Your task to perform on an android device: Go to Android settings Image 0: 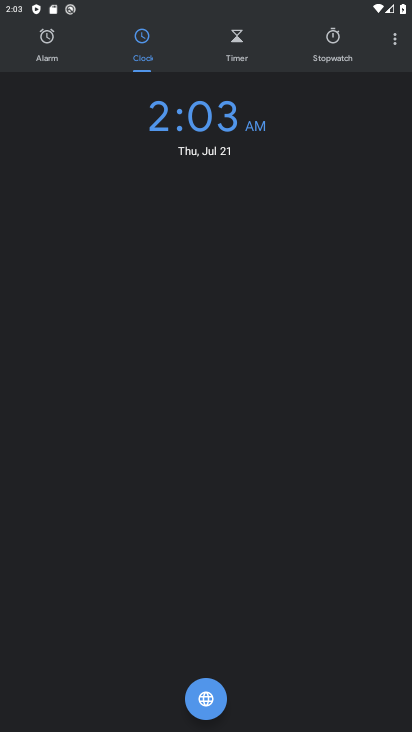
Step 0: press home button
Your task to perform on an android device: Go to Android settings Image 1: 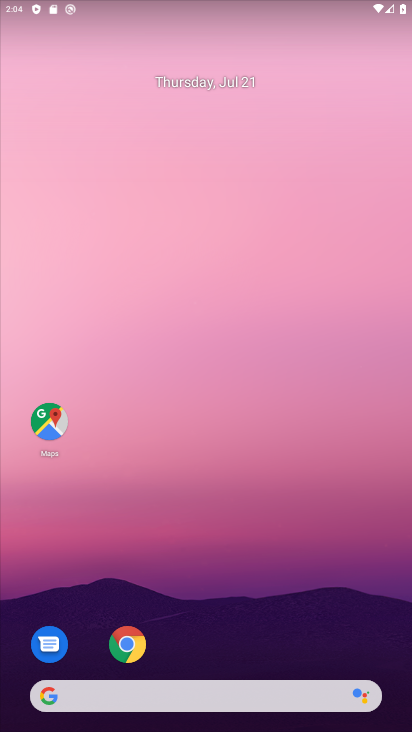
Step 1: drag from (293, 631) to (221, 91)
Your task to perform on an android device: Go to Android settings Image 2: 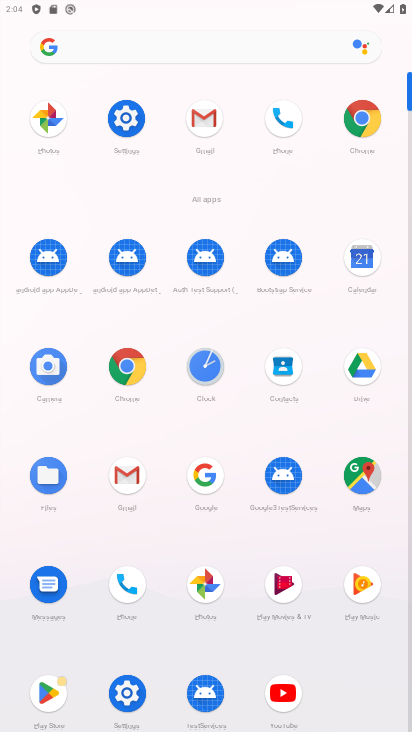
Step 2: click (121, 117)
Your task to perform on an android device: Go to Android settings Image 3: 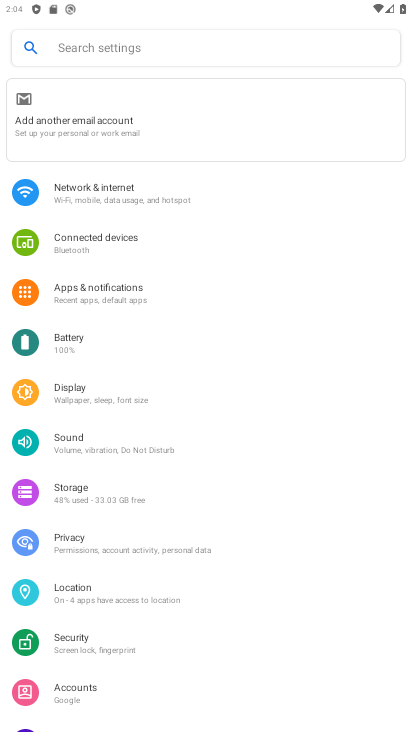
Step 3: task complete